Your task to perform on an android device: What's the weather going to be this weekend? Image 0: 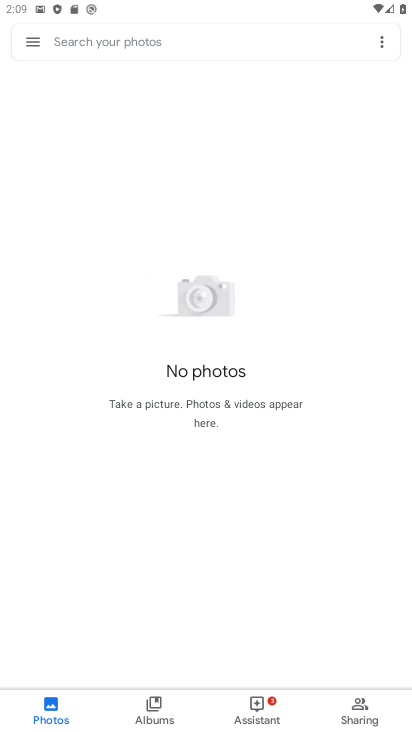
Step 0: press home button
Your task to perform on an android device: What's the weather going to be this weekend? Image 1: 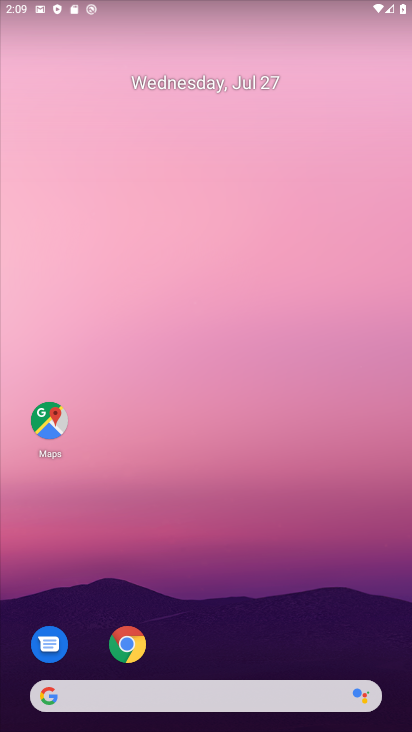
Step 1: click (199, 699)
Your task to perform on an android device: What's the weather going to be this weekend? Image 2: 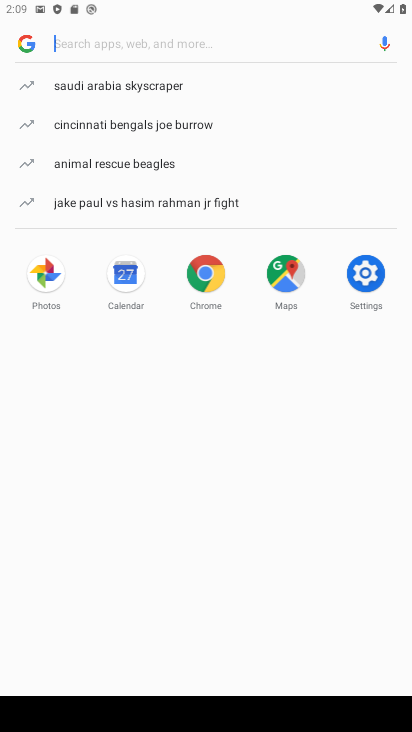
Step 2: type "weather"
Your task to perform on an android device: What's the weather going to be this weekend? Image 3: 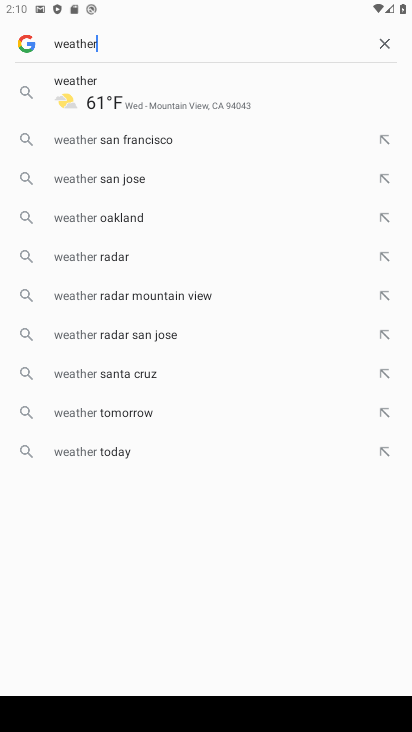
Step 3: click (83, 84)
Your task to perform on an android device: What's the weather going to be this weekend? Image 4: 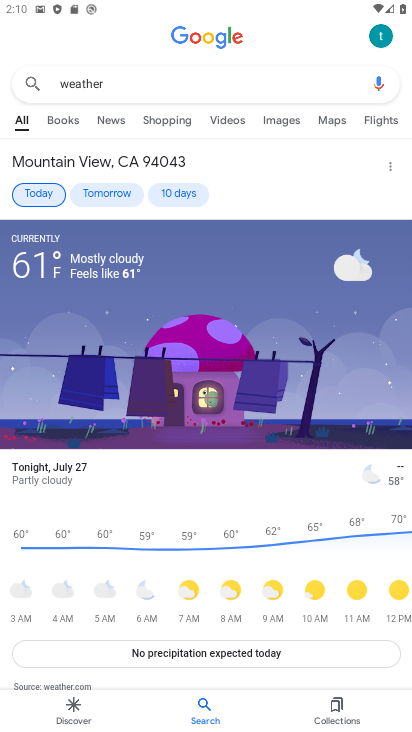
Step 4: click (187, 197)
Your task to perform on an android device: What's the weather going to be this weekend? Image 5: 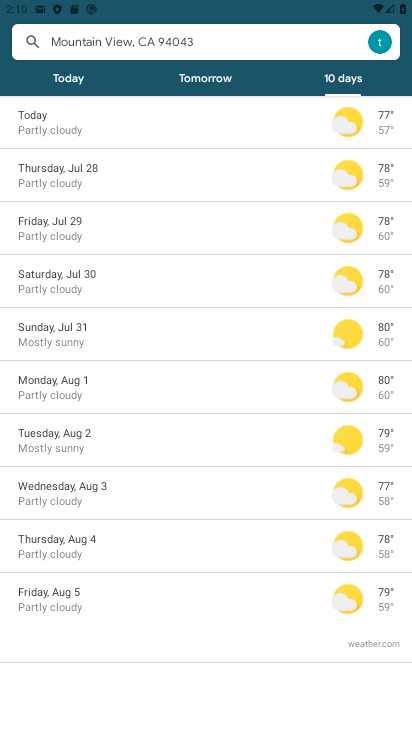
Step 5: task complete